Your task to perform on an android device: Go to battery settings Image 0: 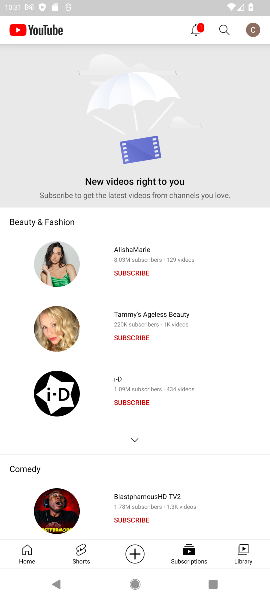
Step 0: press home button
Your task to perform on an android device: Go to battery settings Image 1: 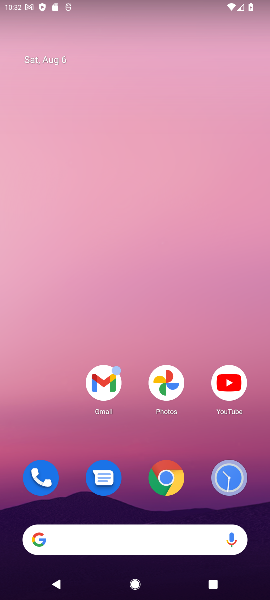
Step 1: drag from (140, 484) to (171, 78)
Your task to perform on an android device: Go to battery settings Image 2: 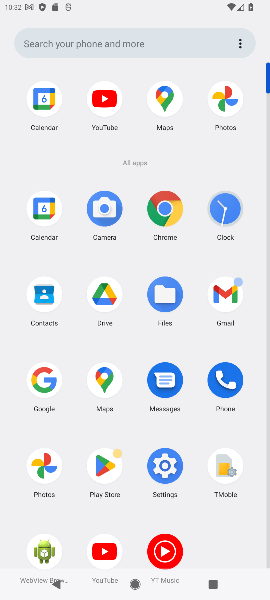
Step 2: click (163, 468)
Your task to perform on an android device: Go to battery settings Image 3: 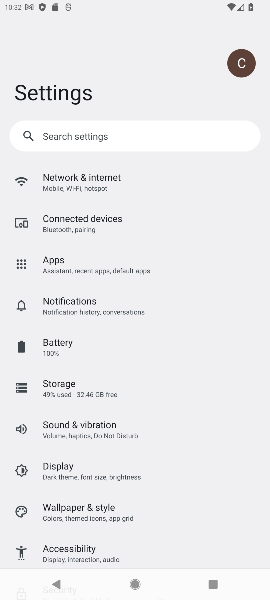
Step 3: click (49, 347)
Your task to perform on an android device: Go to battery settings Image 4: 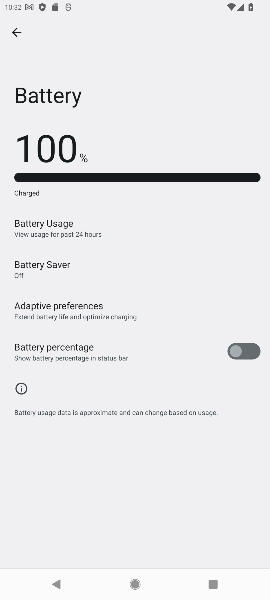
Step 4: task complete